Your task to perform on an android device: turn on airplane mode Image 0: 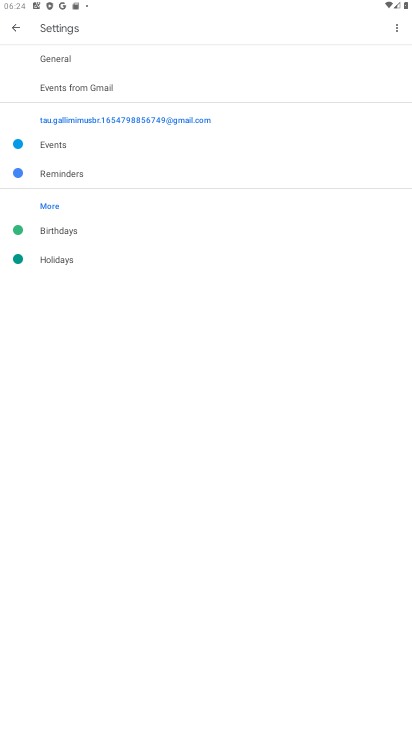
Step 0: press home button
Your task to perform on an android device: turn on airplane mode Image 1: 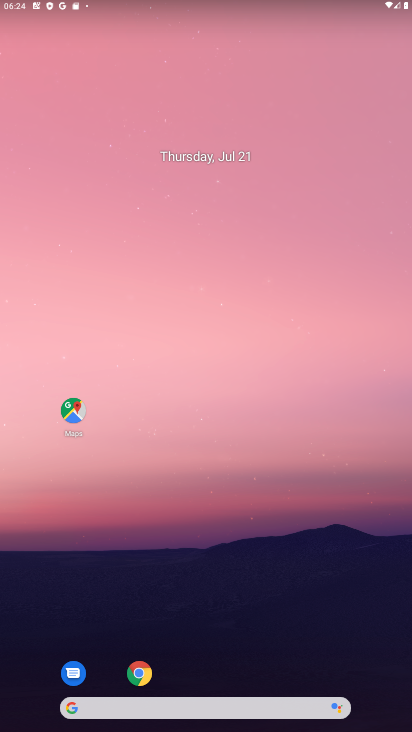
Step 1: press home button
Your task to perform on an android device: turn on airplane mode Image 2: 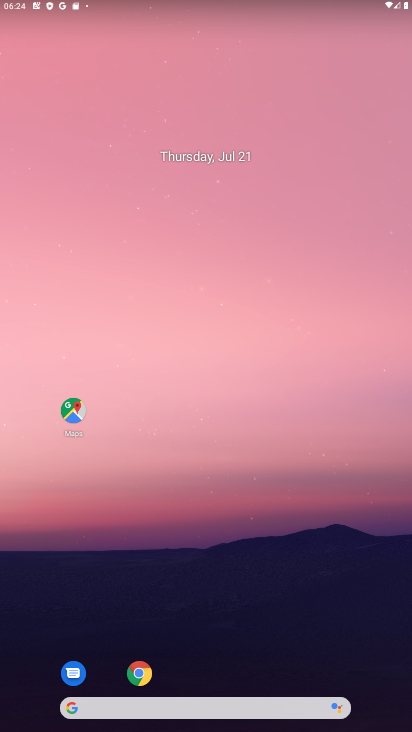
Step 2: drag from (189, 655) to (243, 201)
Your task to perform on an android device: turn on airplane mode Image 3: 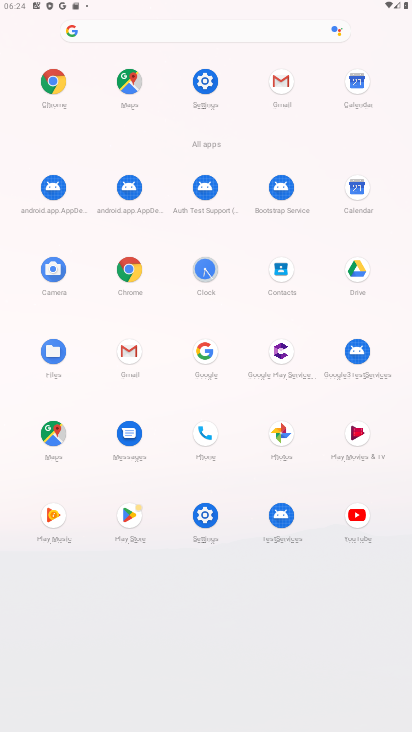
Step 3: click (202, 95)
Your task to perform on an android device: turn on airplane mode Image 4: 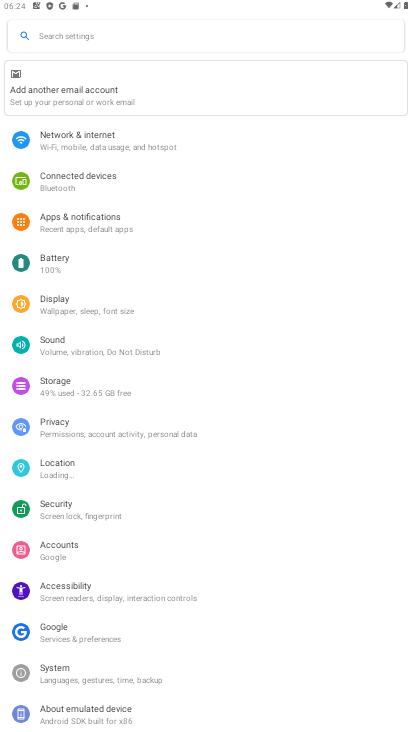
Step 4: click (102, 139)
Your task to perform on an android device: turn on airplane mode Image 5: 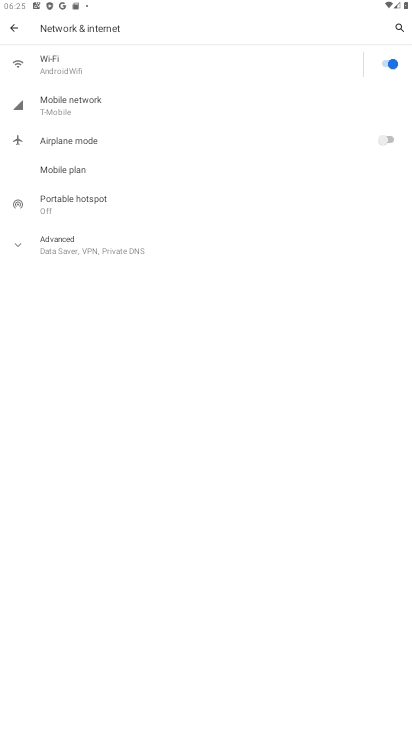
Step 5: click (388, 142)
Your task to perform on an android device: turn on airplane mode Image 6: 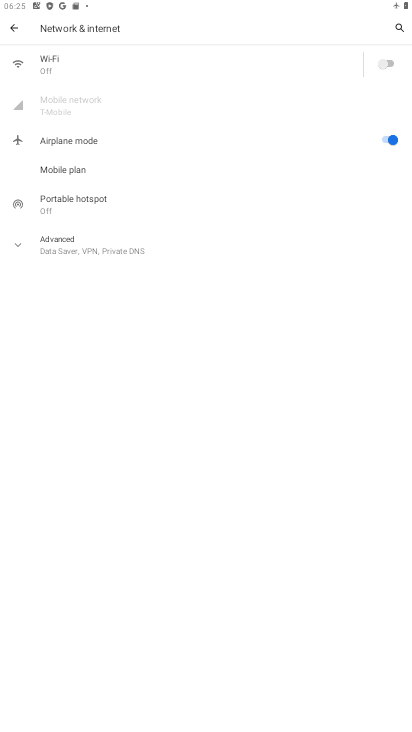
Step 6: task complete